Your task to perform on an android device: open device folders in google photos Image 0: 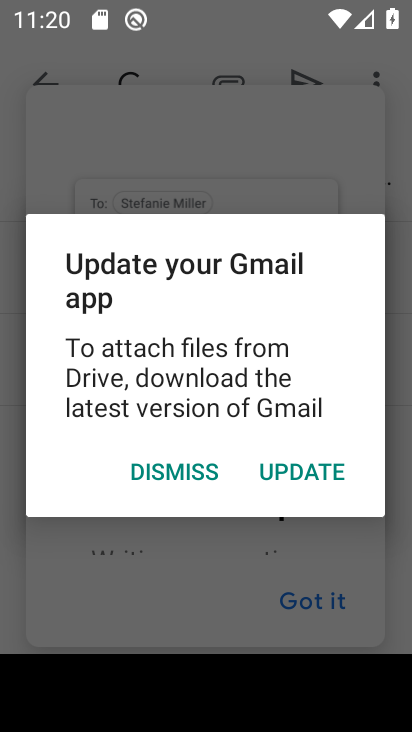
Step 0: press home button
Your task to perform on an android device: open device folders in google photos Image 1: 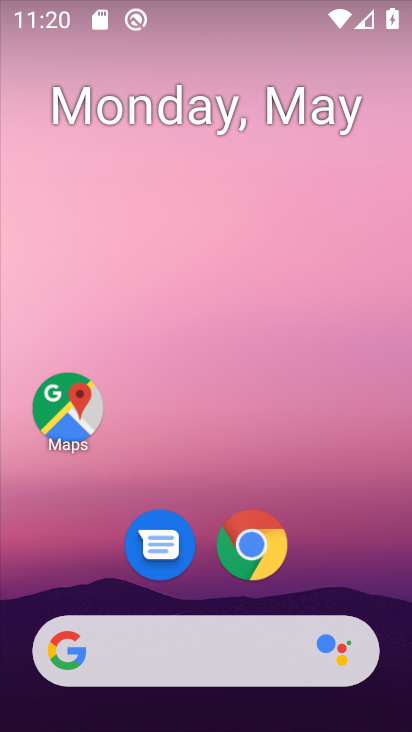
Step 1: drag from (105, 626) to (252, 137)
Your task to perform on an android device: open device folders in google photos Image 2: 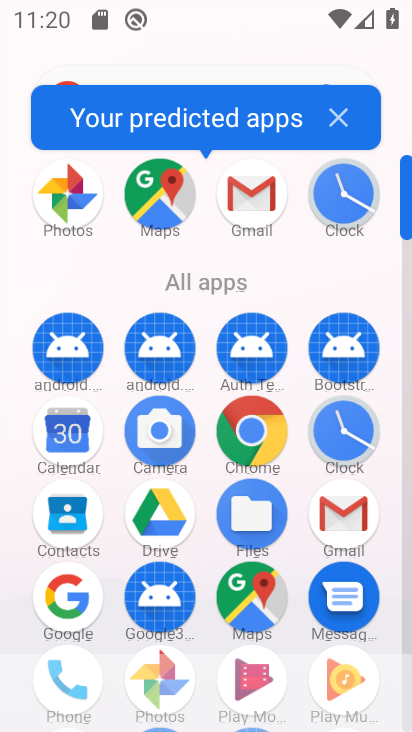
Step 2: drag from (223, 653) to (261, 481)
Your task to perform on an android device: open device folders in google photos Image 3: 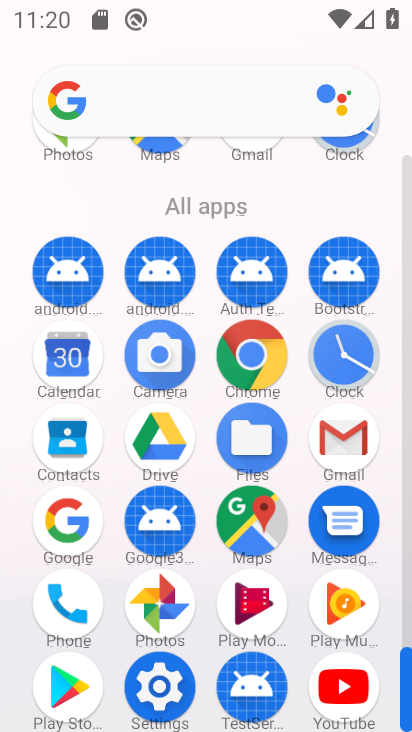
Step 3: click (162, 592)
Your task to perform on an android device: open device folders in google photos Image 4: 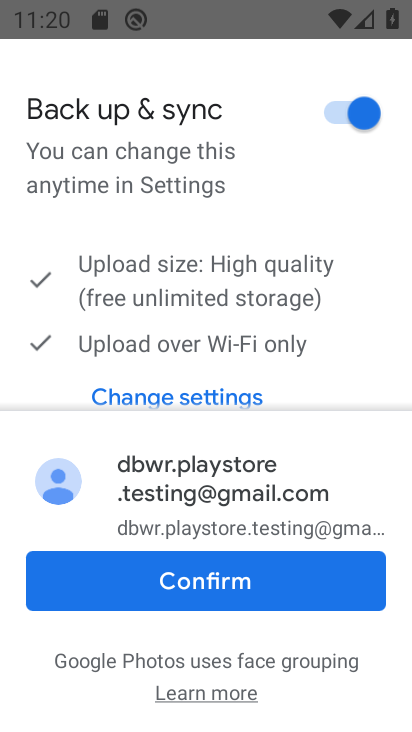
Step 4: click (267, 603)
Your task to perform on an android device: open device folders in google photos Image 5: 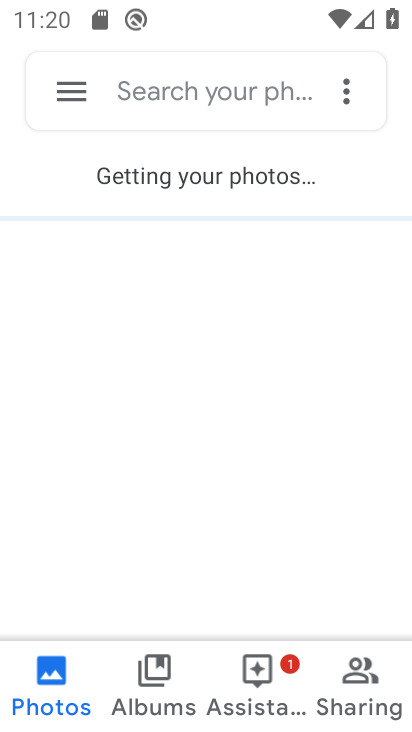
Step 5: click (79, 101)
Your task to perform on an android device: open device folders in google photos Image 6: 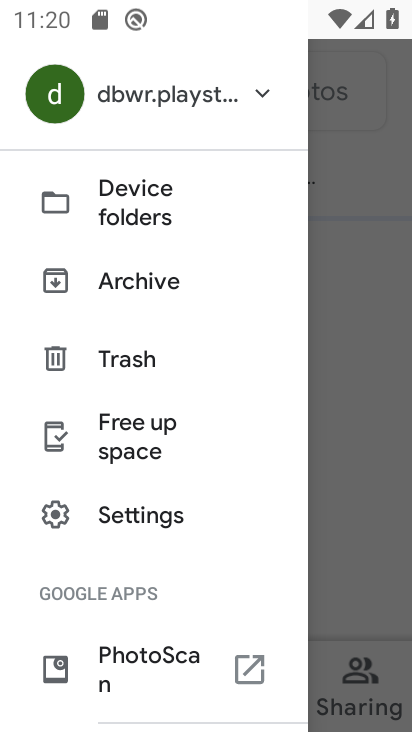
Step 6: click (173, 190)
Your task to perform on an android device: open device folders in google photos Image 7: 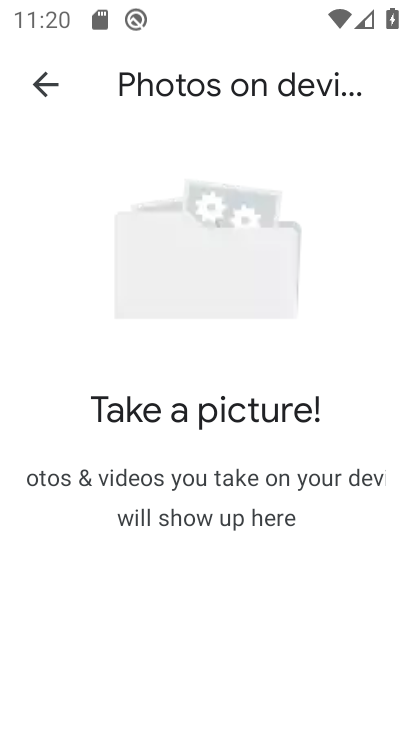
Step 7: task complete